Your task to perform on an android device: Open the calendar and show me this week's events Image 0: 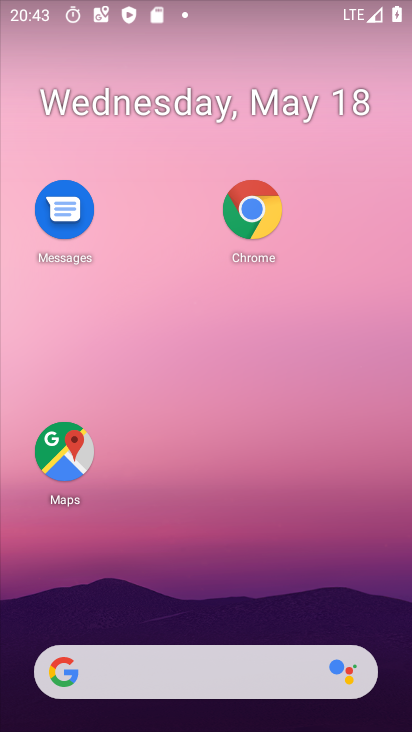
Step 0: click (168, 117)
Your task to perform on an android device: Open the calendar and show me this week's events Image 1: 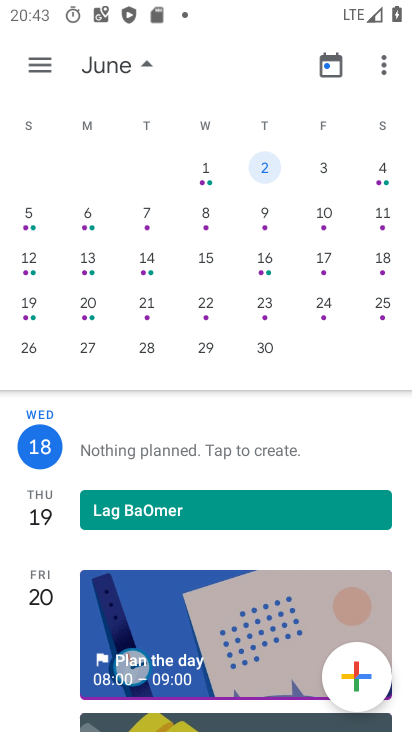
Step 1: drag from (18, 284) to (331, 333)
Your task to perform on an android device: Open the calendar and show me this week's events Image 2: 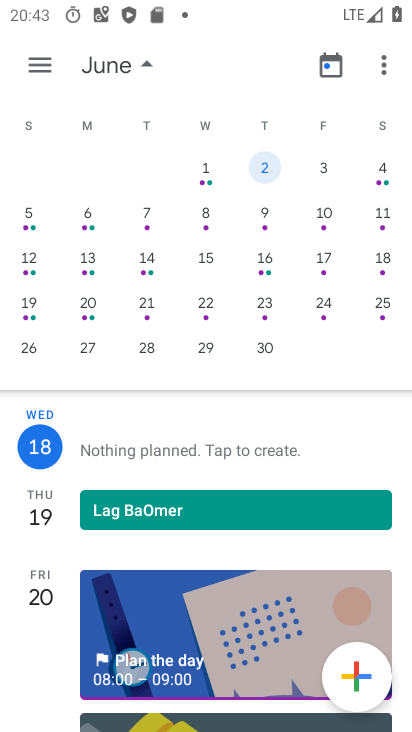
Step 2: drag from (45, 164) to (382, 197)
Your task to perform on an android device: Open the calendar and show me this week's events Image 3: 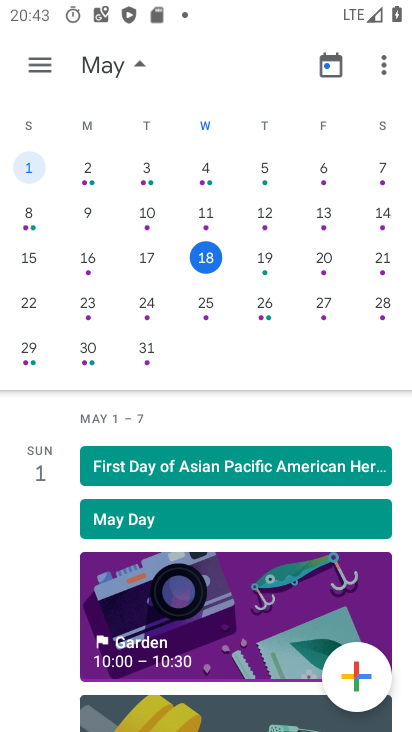
Step 3: click (25, 84)
Your task to perform on an android device: Open the calendar and show me this week's events Image 4: 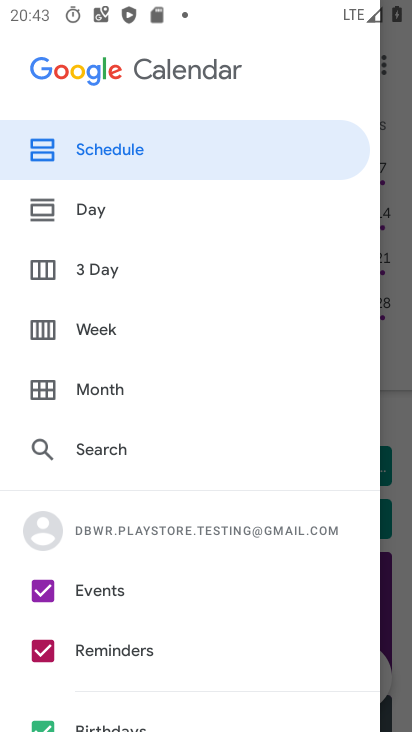
Step 4: click (36, 655)
Your task to perform on an android device: Open the calendar and show me this week's events Image 5: 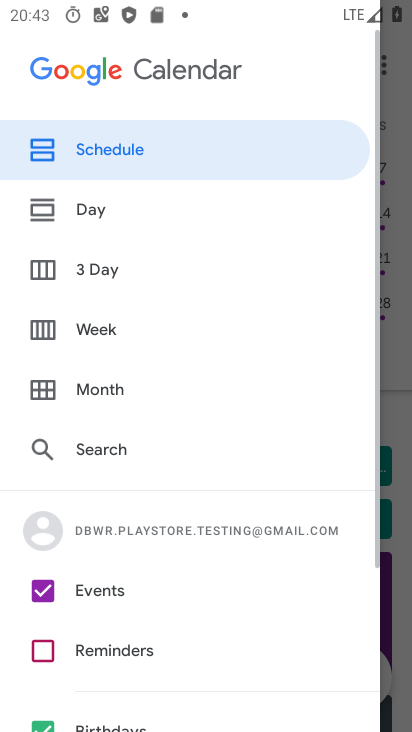
Step 5: drag from (251, 666) to (322, 163)
Your task to perform on an android device: Open the calendar and show me this week's events Image 6: 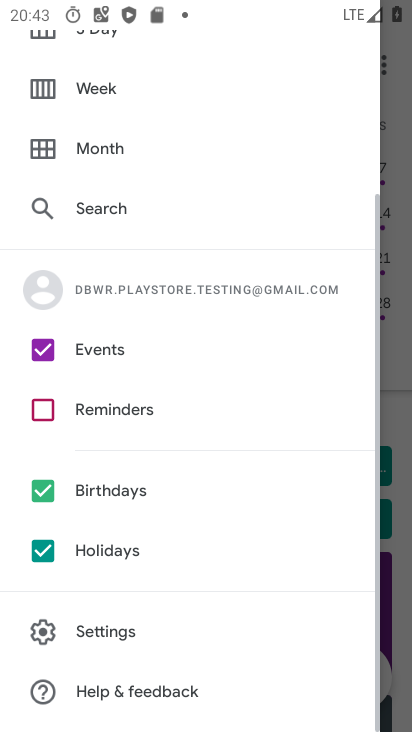
Step 6: click (41, 492)
Your task to perform on an android device: Open the calendar and show me this week's events Image 7: 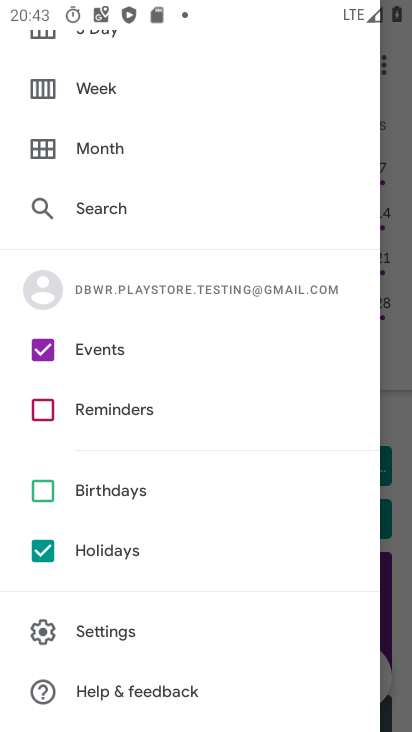
Step 7: click (33, 547)
Your task to perform on an android device: Open the calendar and show me this week's events Image 8: 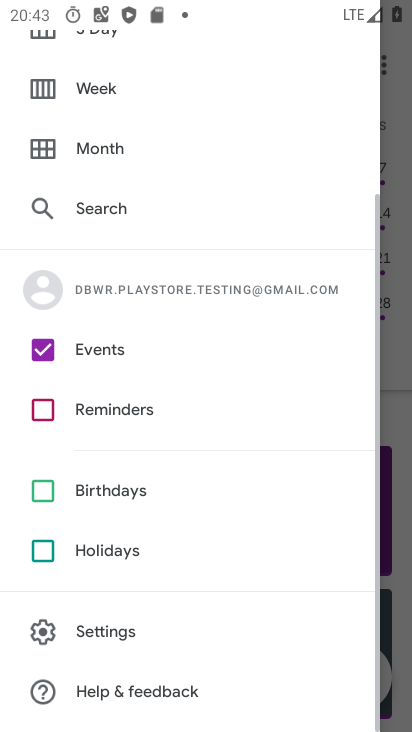
Step 8: click (392, 433)
Your task to perform on an android device: Open the calendar and show me this week's events Image 9: 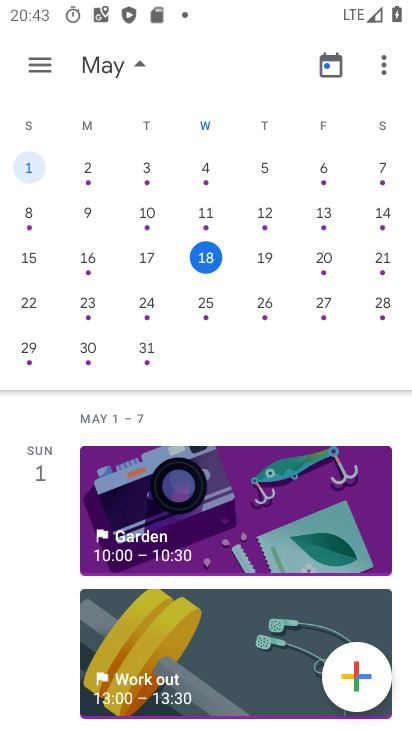
Step 9: task complete